Your task to perform on an android device: Open battery settings Image 0: 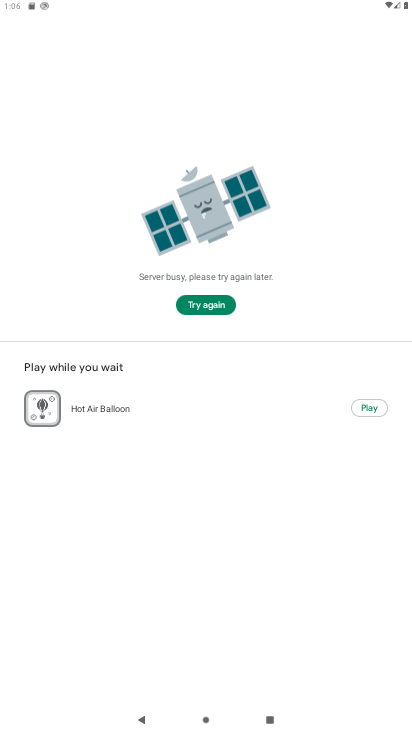
Step 0: press home button
Your task to perform on an android device: Open battery settings Image 1: 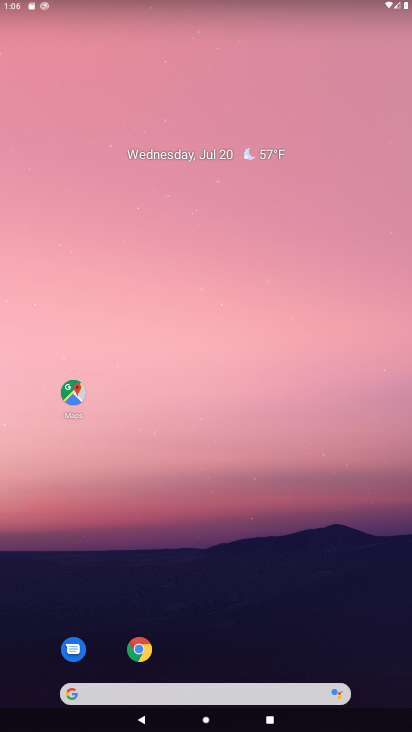
Step 1: drag from (275, 315) to (305, 147)
Your task to perform on an android device: Open battery settings Image 2: 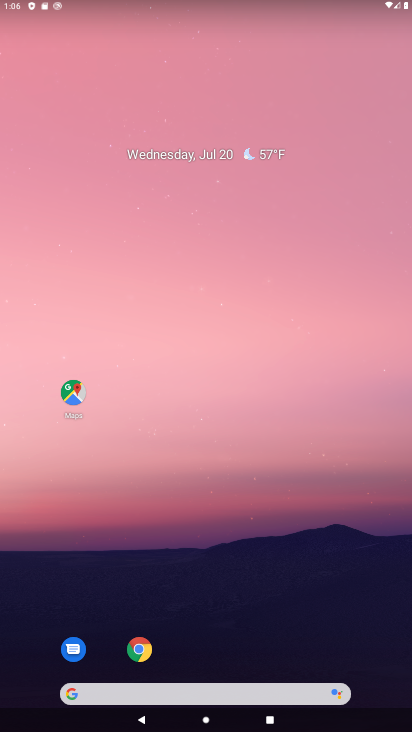
Step 2: drag from (280, 662) to (354, 104)
Your task to perform on an android device: Open battery settings Image 3: 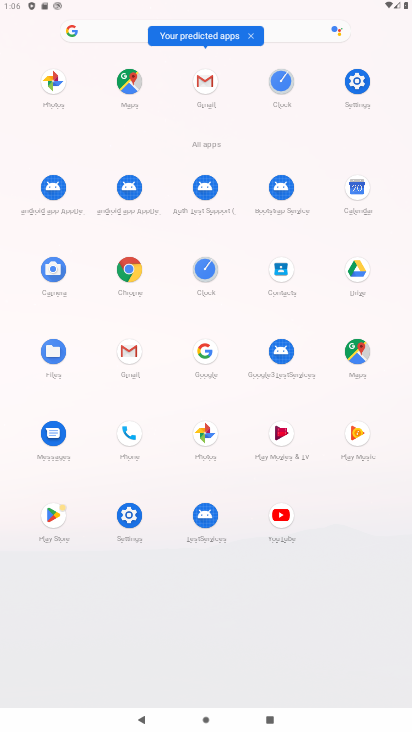
Step 3: click (137, 529)
Your task to perform on an android device: Open battery settings Image 4: 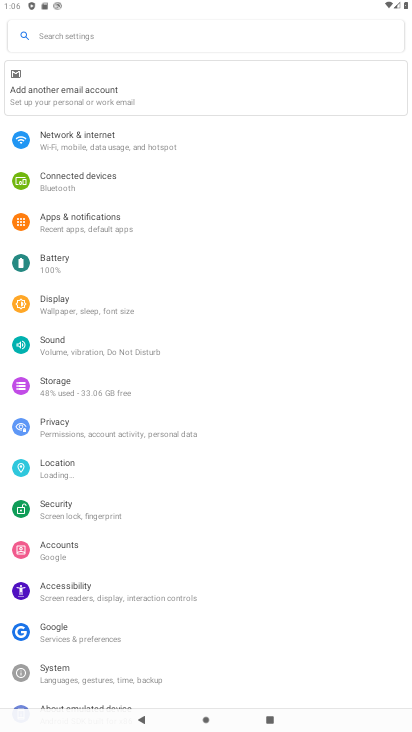
Step 4: click (74, 271)
Your task to perform on an android device: Open battery settings Image 5: 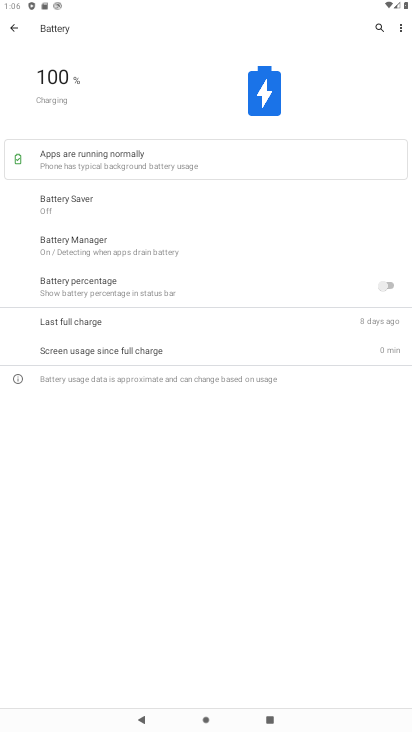
Step 5: task complete